Your task to perform on an android device: read, delete, or share a saved page in the chrome app Image 0: 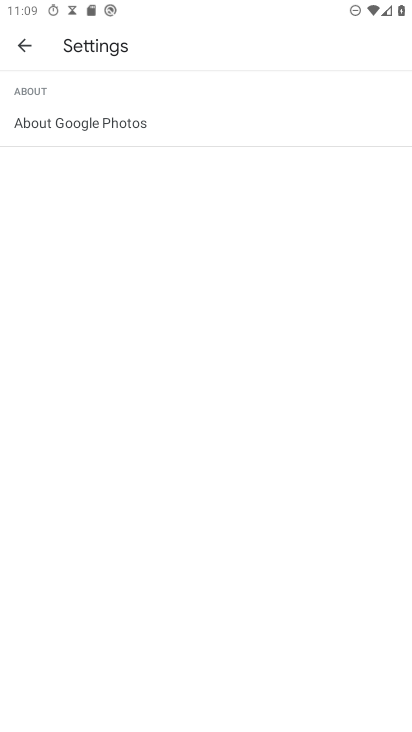
Step 0: press back button
Your task to perform on an android device: read, delete, or share a saved page in the chrome app Image 1: 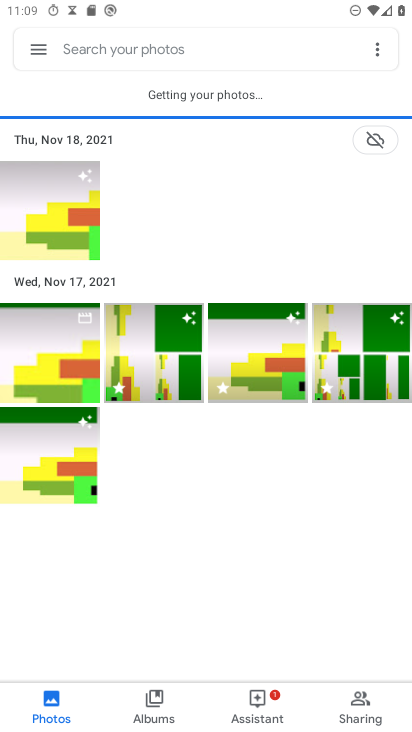
Step 1: press home button
Your task to perform on an android device: read, delete, or share a saved page in the chrome app Image 2: 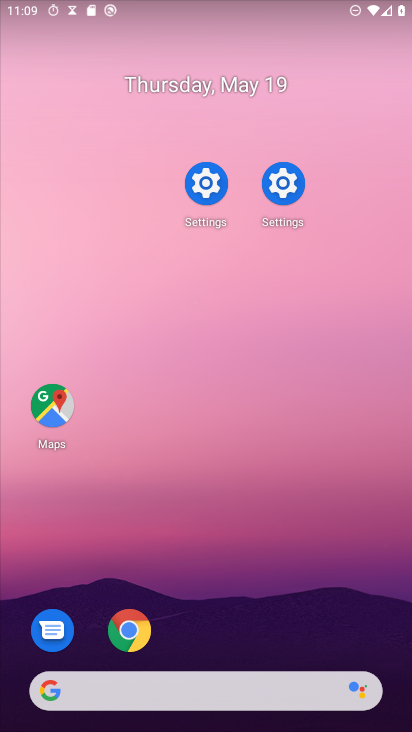
Step 2: drag from (326, 658) to (191, 88)
Your task to perform on an android device: read, delete, or share a saved page in the chrome app Image 3: 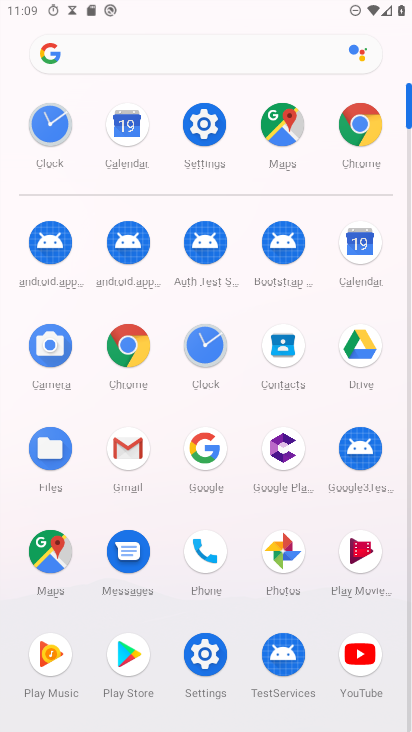
Step 3: click (361, 125)
Your task to perform on an android device: read, delete, or share a saved page in the chrome app Image 4: 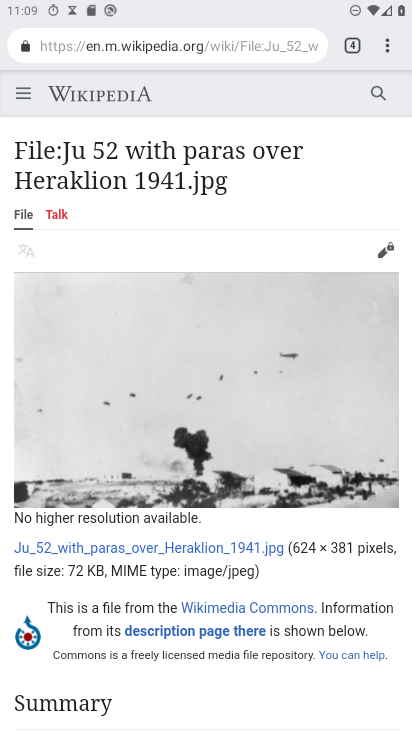
Step 4: drag from (389, 39) to (157, 115)
Your task to perform on an android device: read, delete, or share a saved page in the chrome app Image 5: 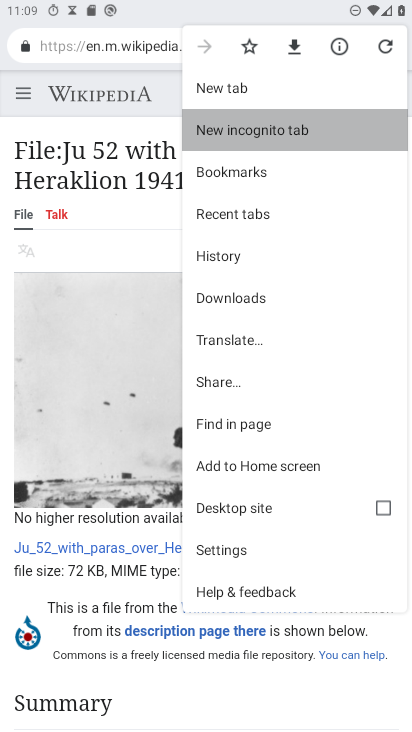
Step 5: drag from (150, 90) to (212, 90)
Your task to perform on an android device: read, delete, or share a saved page in the chrome app Image 6: 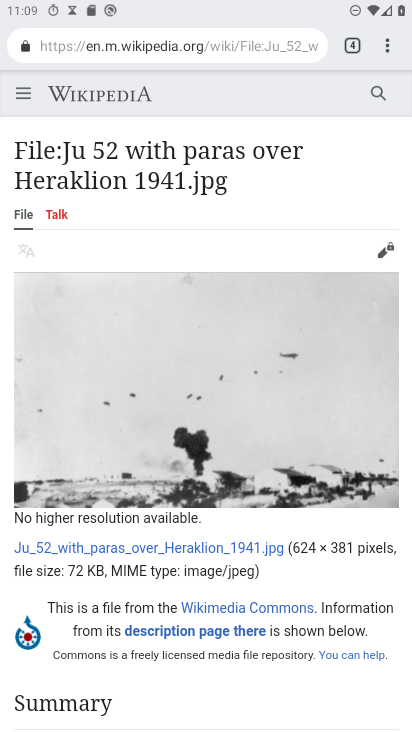
Step 6: drag from (388, 46) to (220, 303)
Your task to perform on an android device: read, delete, or share a saved page in the chrome app Image 7: 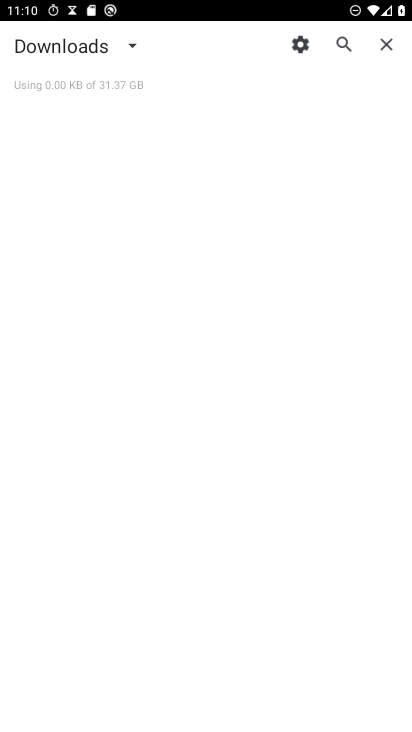
Step 7: click (135, 57)
Your task to perform on an android device: read, delete, or share a saved page in the chrome app Image 8: 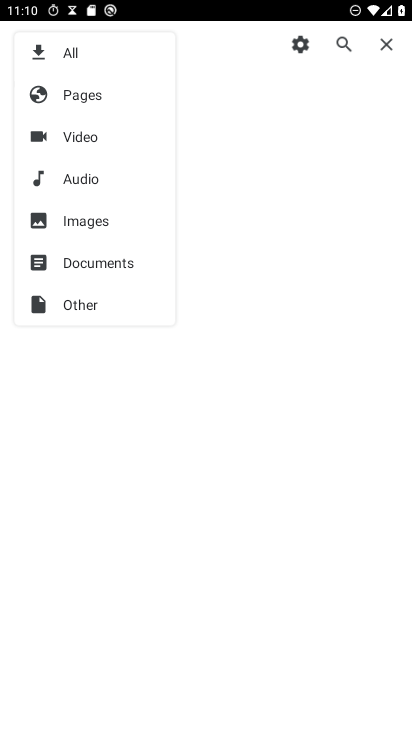
Step 8: click (81, 95)
Your task to perform on an android device: read, delete, or share a saved page in the chrome app Image 9: 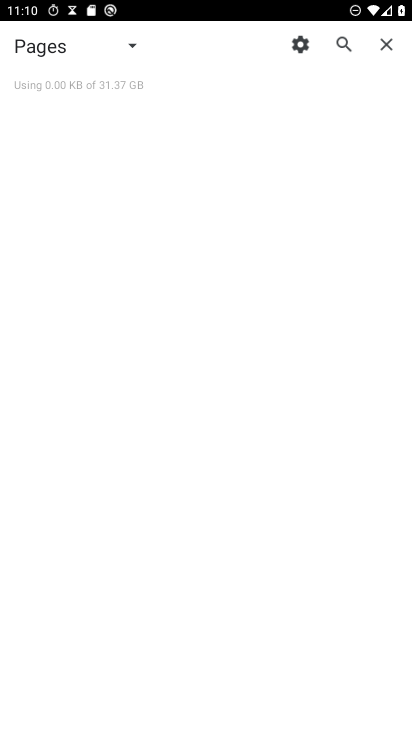
Step 9: task complete